Your task to perform on an android device: delete location history Image 0: 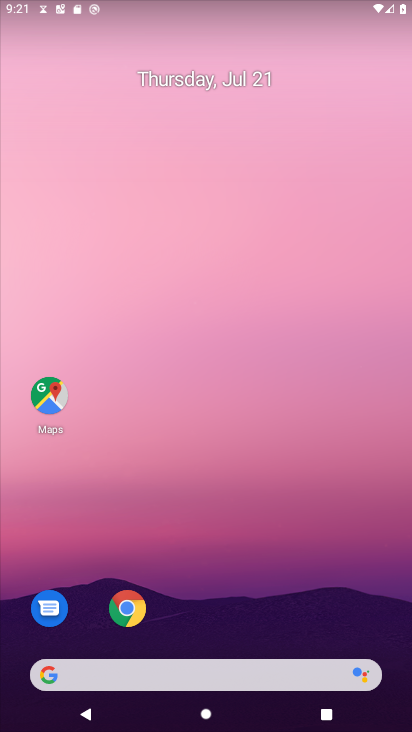
Step 0: drag from (181, 535) to (199, 97)
Your task to perform on an android device: delete location history Image 1: 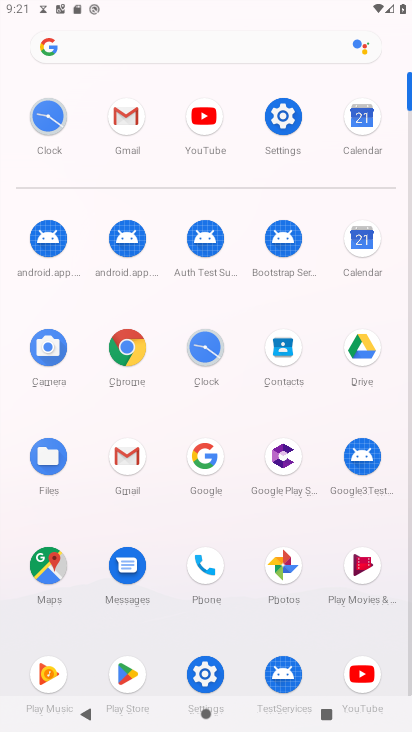
Step 1: click (195, 677)
Your task to perform on an android device: delete location history Image 2: 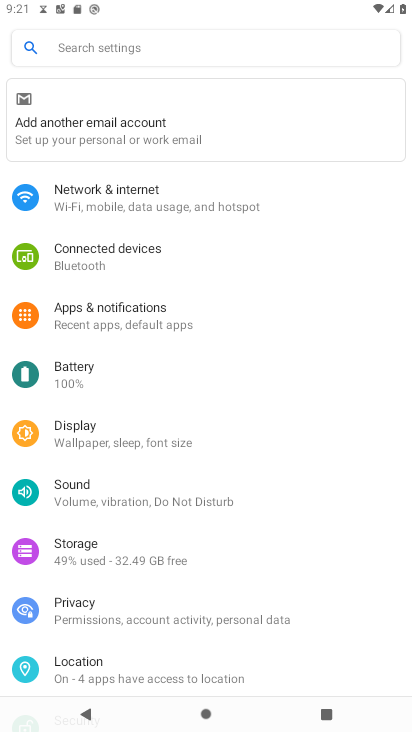
Step 2: click (164, 669)
Your task to perform on an android device: delete location history Image 3: 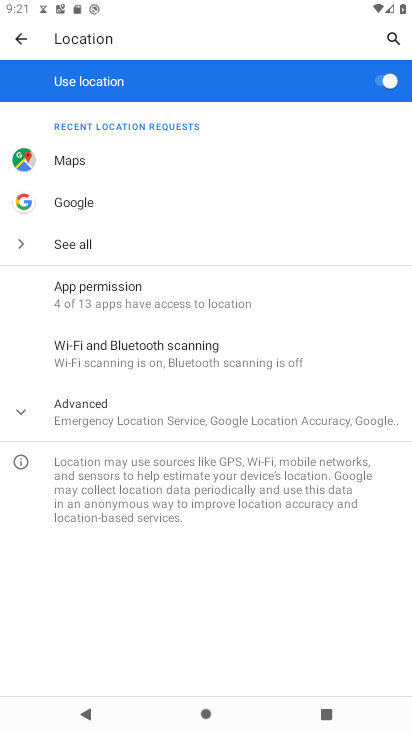
Step 3: click (120, 431)
Your task to perform on an android device: delete location history Image 4: 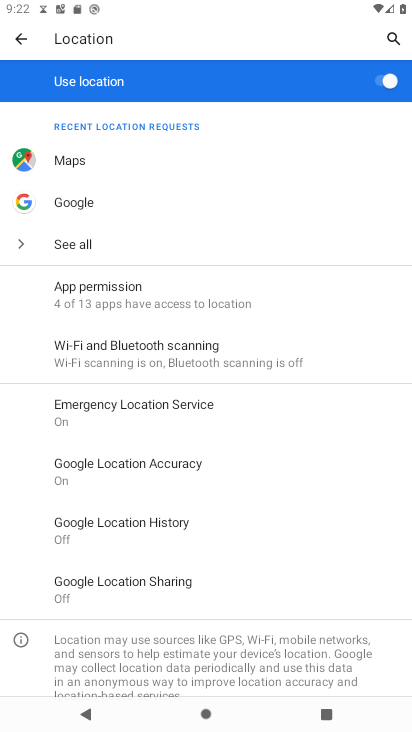
Step 4: click (95, 526)
Your task to perform on an android device: delete location history Image 5: 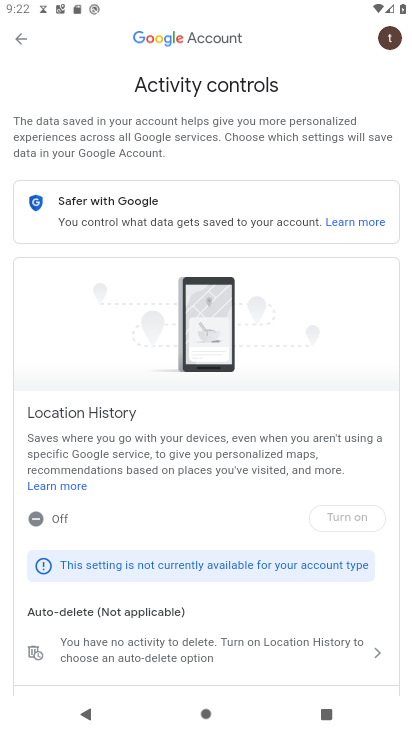
Step 5: drag from (162, 576) to (162, 413)
Your task to perform on an android device: delete location history Image 6: 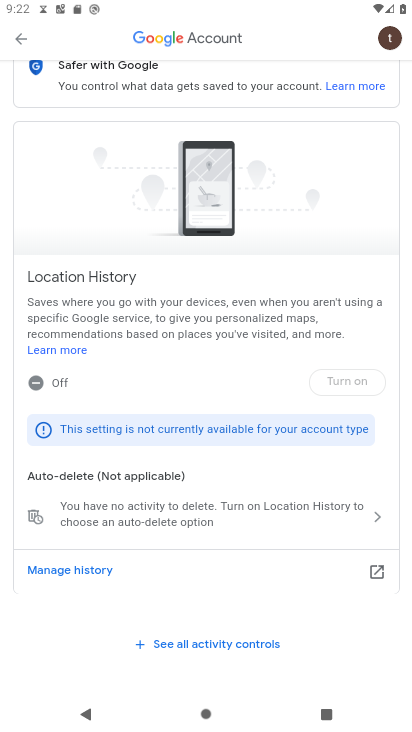
Step 6: click (78, 574)
Your task to perform on an android device: delete location history Image 7: 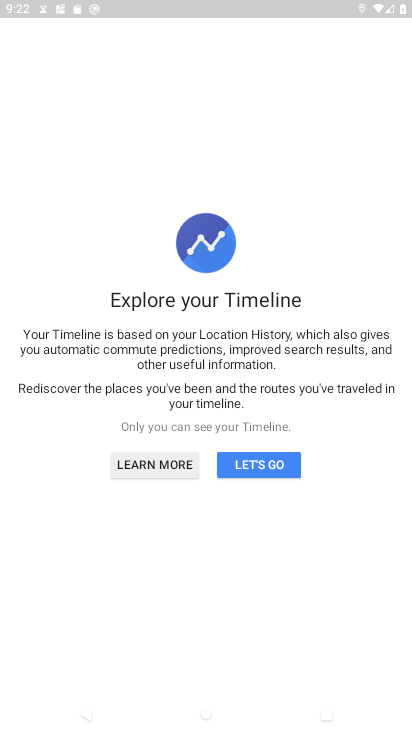
Step 7: click (244, 471)
Your task to perform on an android device: delete location history Image 8: 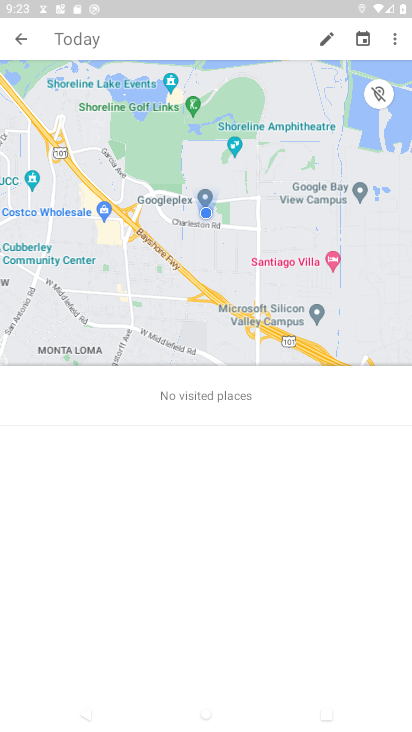
Step 8: click (394, 32)
Your task to perform on an android device: delete location history Image 9: 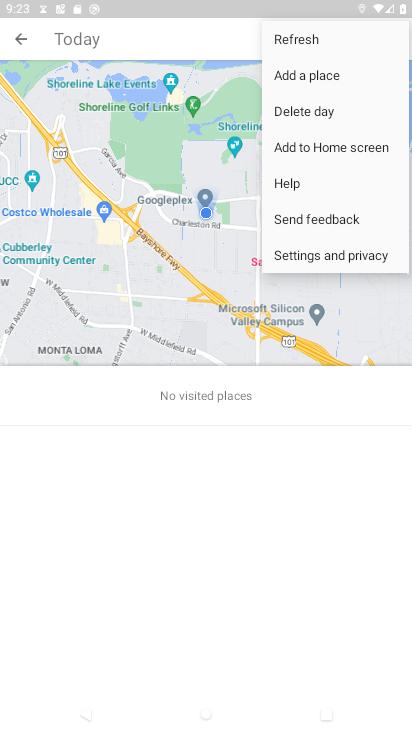
Step 9: click (351, 252)
Your task to perform on an android device: delete location history Image 10: 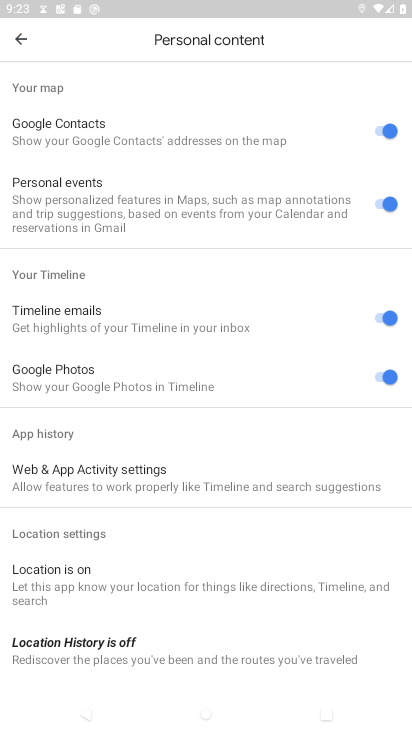
Step 10: drag from (199, 533) to (210, 311)
Your task to perform on an android device: delete location history Image 11: 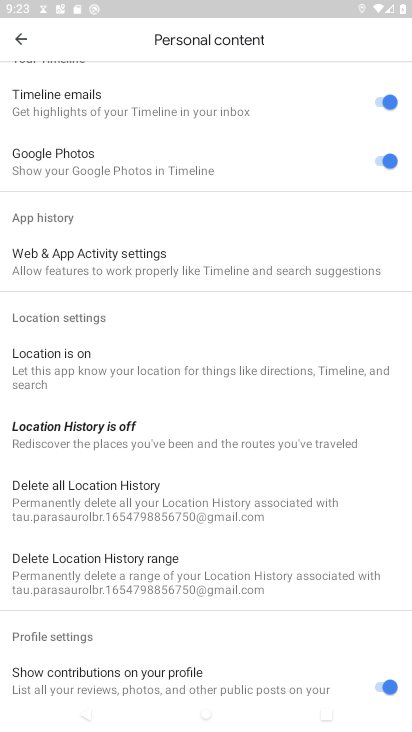
Step 11: click (134, 503)
Your task to perform on an android device: delete location history Image 12: 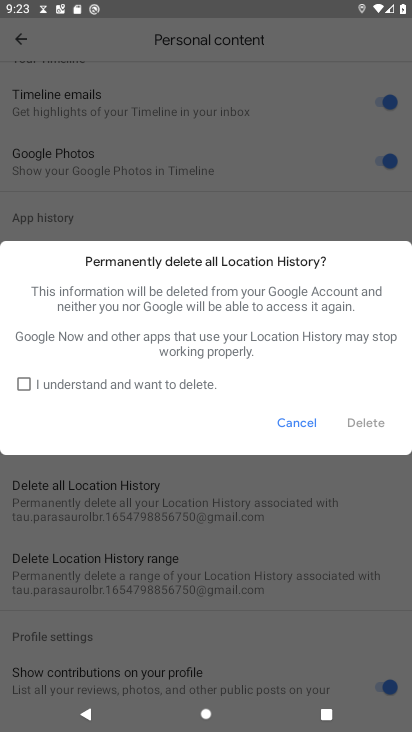
Step 12: click (26, 388)
Your task to perform on an android device: delete location history Image 13: 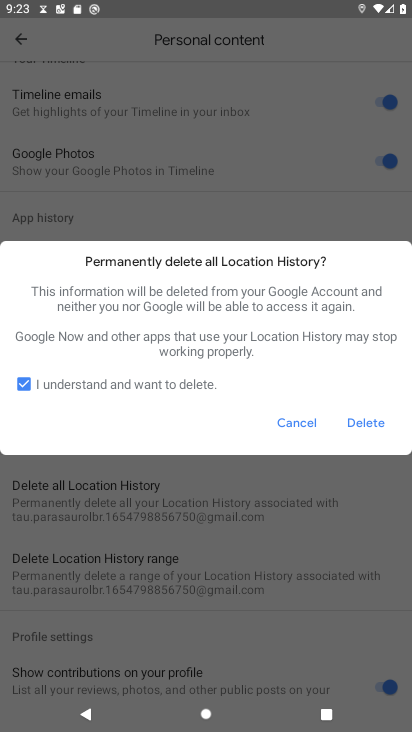
Step 13: click (375, 418)
Your task to perform on an android device: delete location history Image 14: 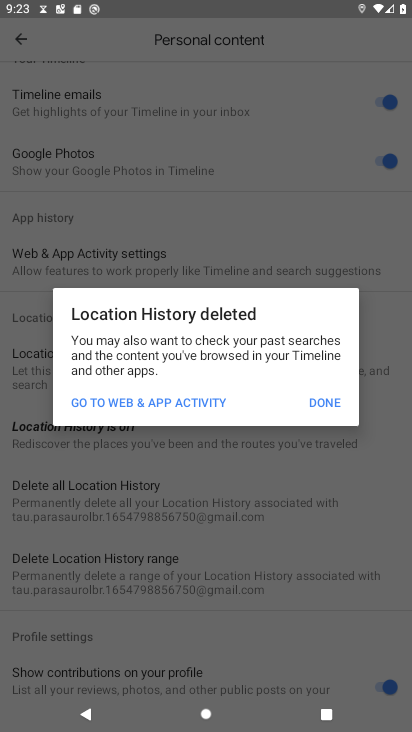
Step 14: click (331, 400)
Your task to perform on an android device: delete location history Image 15: 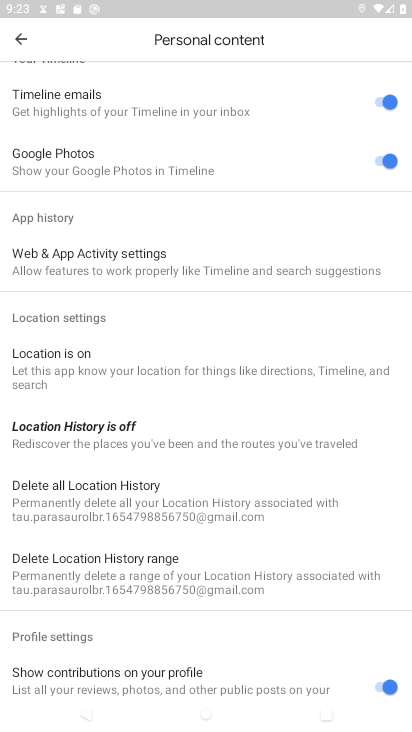
Step 15: task complete